Your task to perform on an android device: Open Google Image 0: 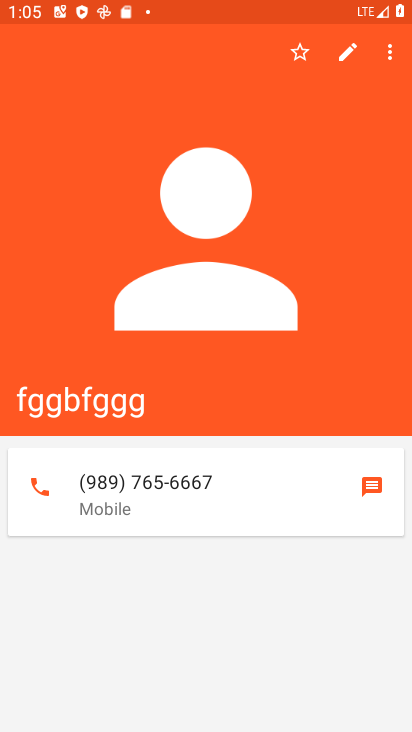
Step 0: press home button
Your task to perform on an android device: Open Google Image 1: 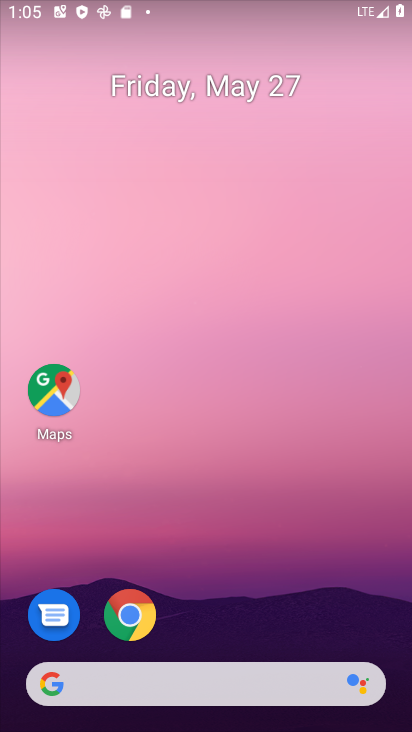
Step 1: drag from (284, 687) to (323, 72)
Your task to perform on an android device: Open Google Image 2: 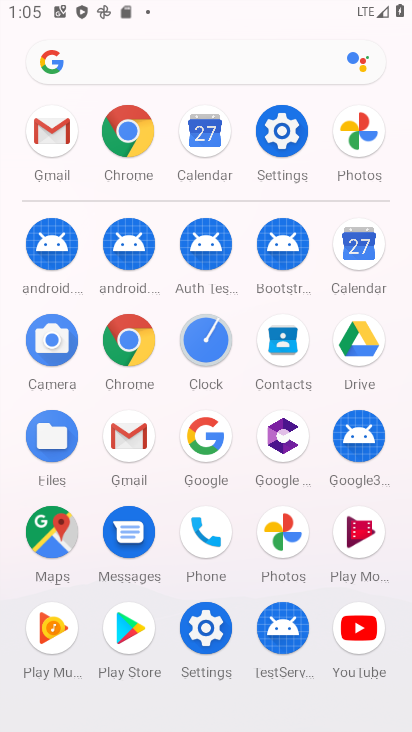
Step 2: click (132, 347)
Your task to perform on an android device: Open Google Image 3: 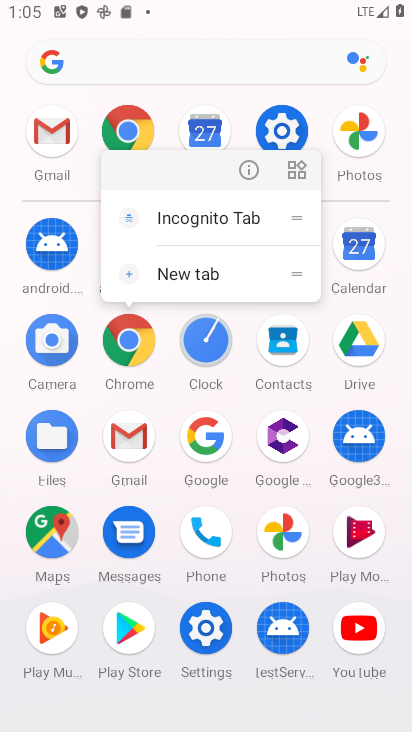
Step 3: click (137, 348)
Your task to perform on an android device: Open Google Image 4: 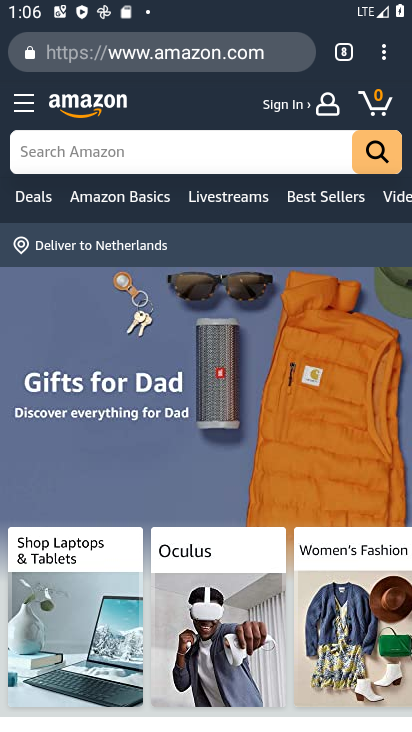
Step 4: click (386, 61)
Your task to perform on an android device: Open Google Image 5: 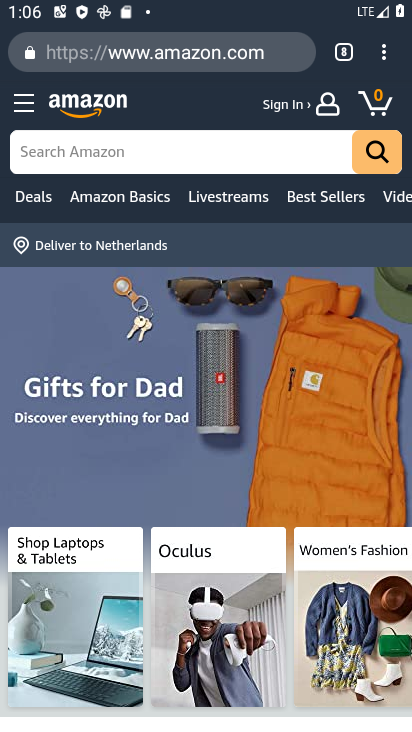
Step 5: task complete